Your task to perform on an android device: Clear the cart on newegg.com. Image 0: 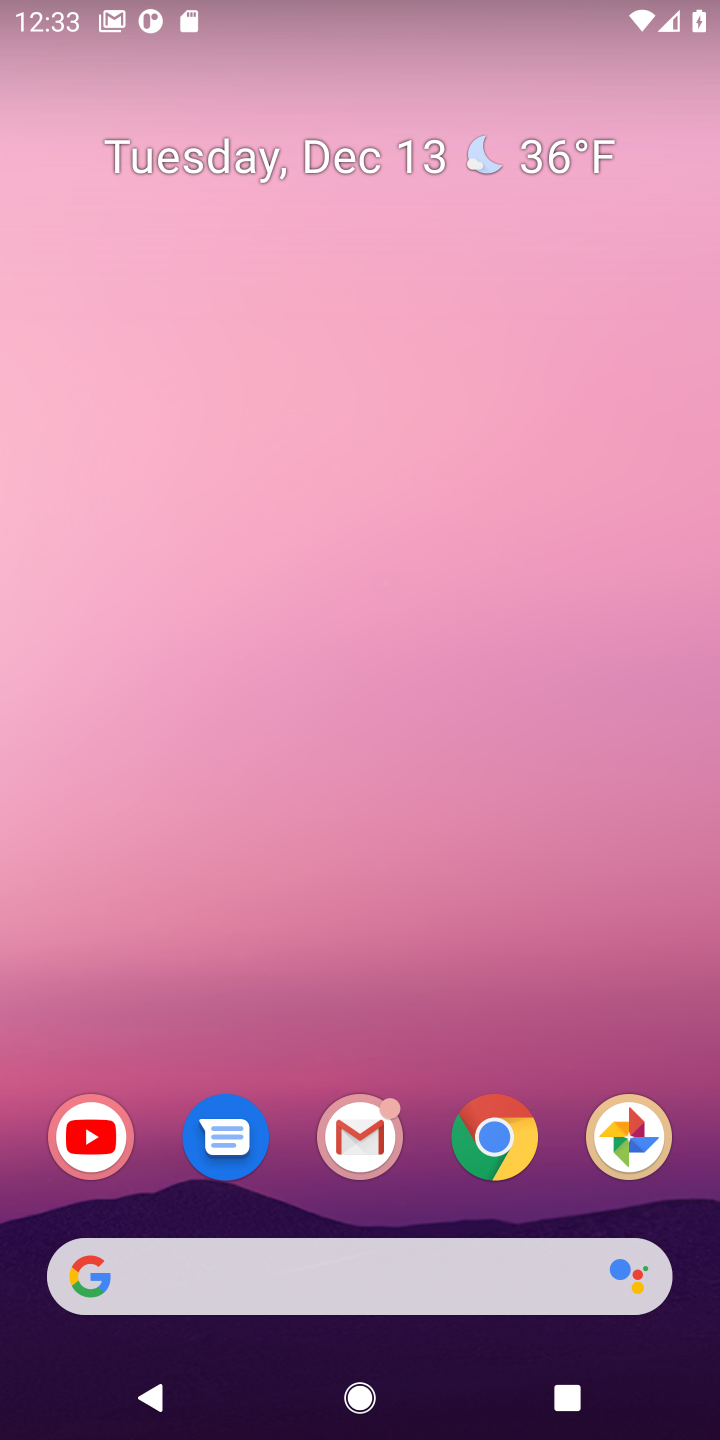
Step 0: click (374, 1272)
Your task to perform on an android device: Clear the cart on newegg.com. Image 1: 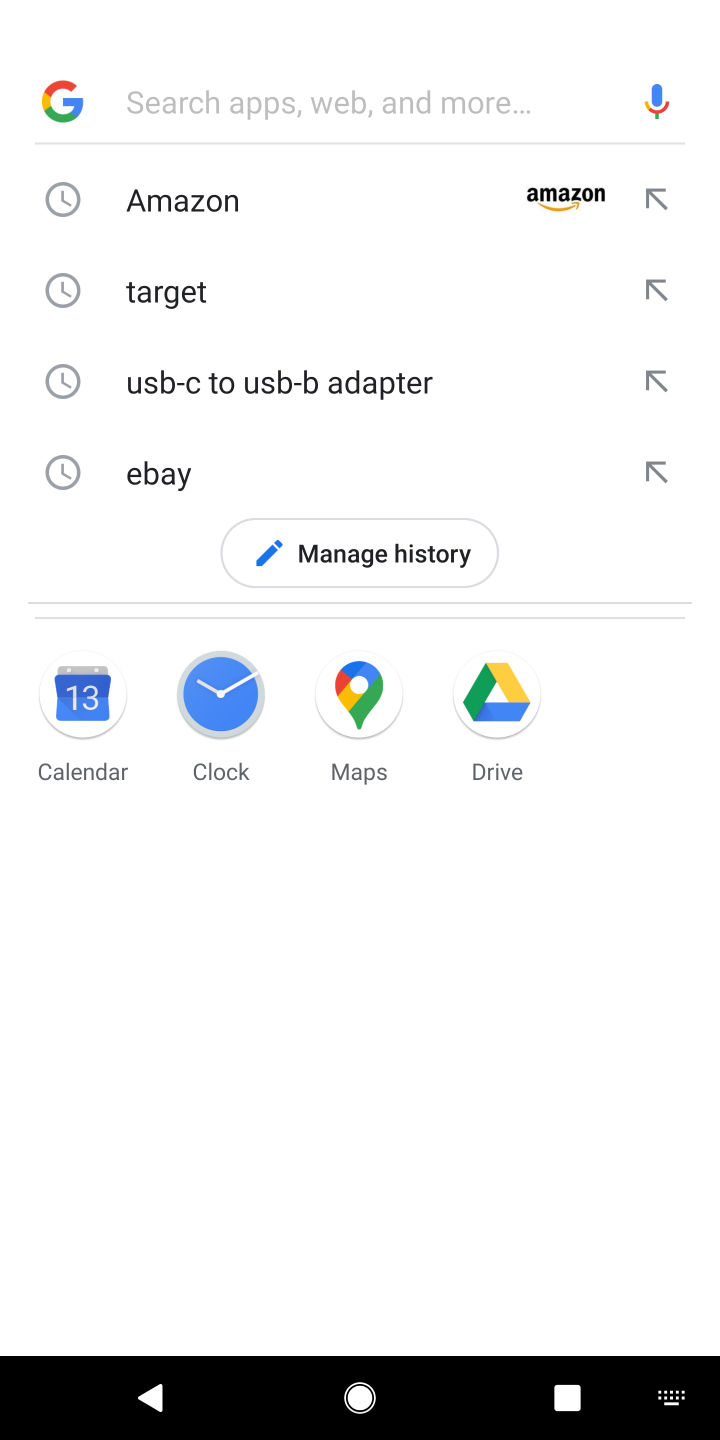
Step 1: type "newegg"
Your task to perform on an android device: Clear the cart on newegg.com. Image 2: 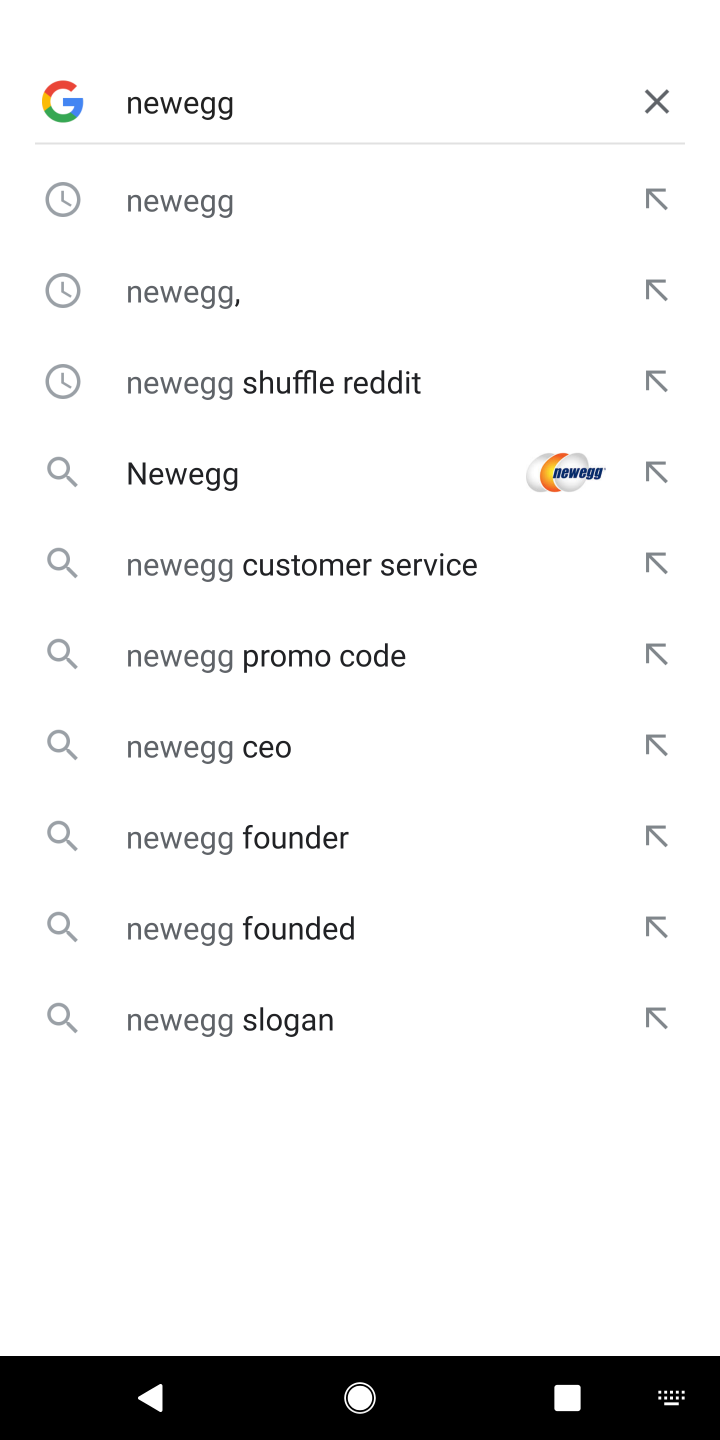
Step 2: click (312, 491)
Your task to perform on an android device: Clear the cart on newegg.com. Image 3: 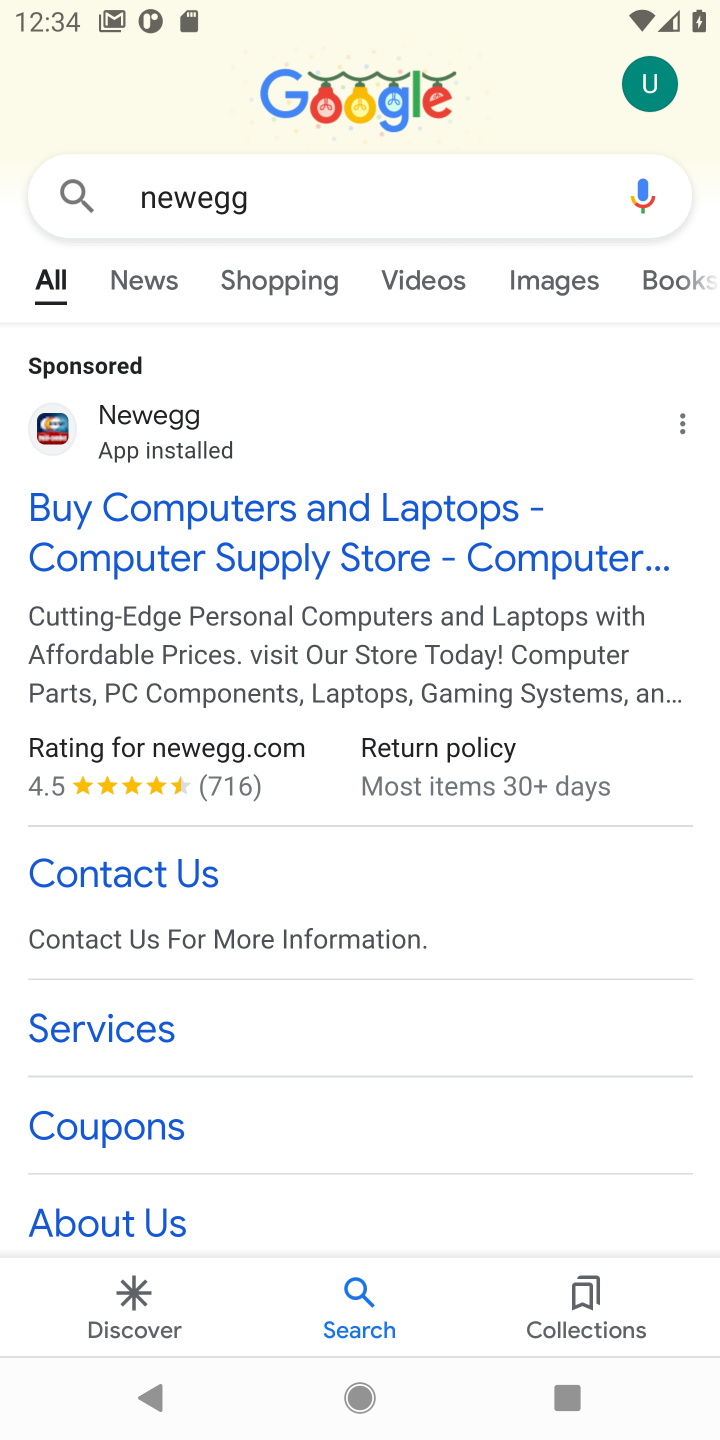
Step 3: click (307, 547)
Your task to perform on an android device: Clear the cart on newegg.com. Image 4: 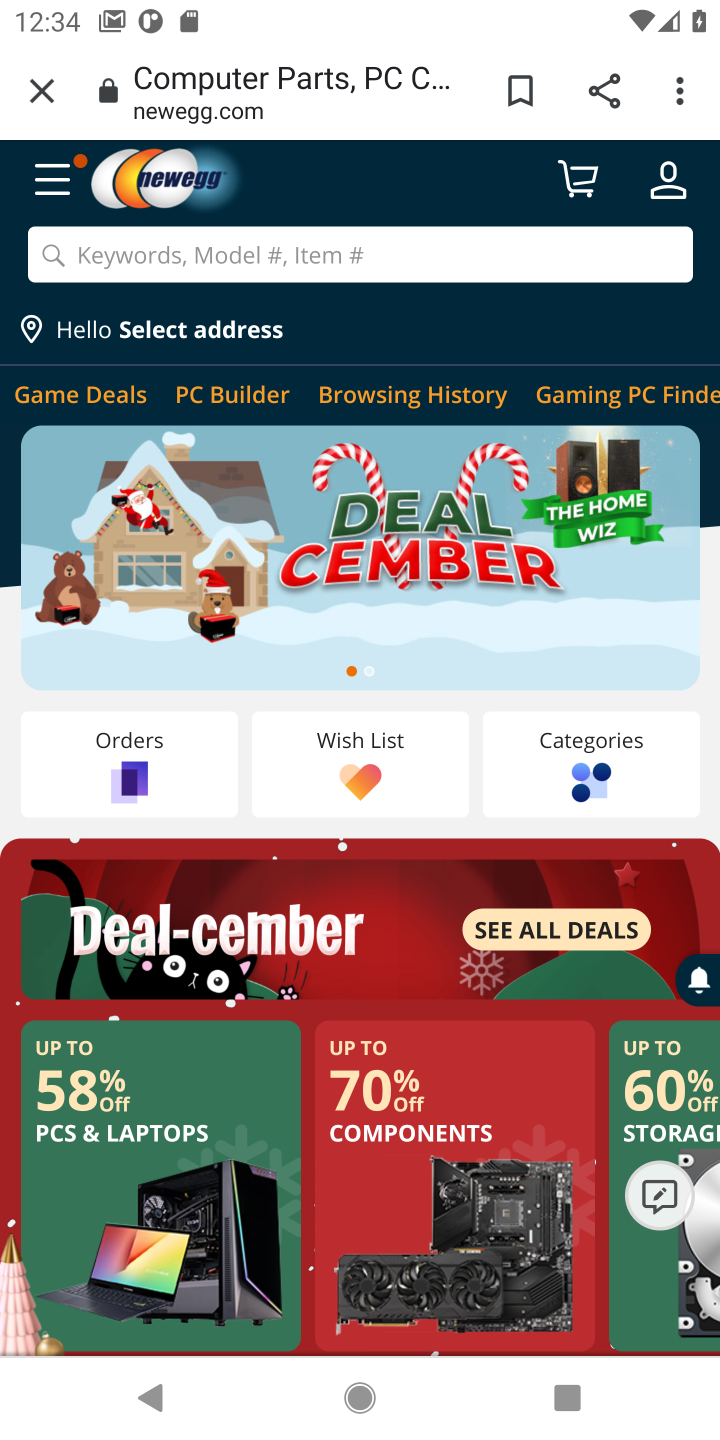
Step 4: click (202, 254)
Your task to perform on an android device: Clear the cart on newegg.com. Image 5: 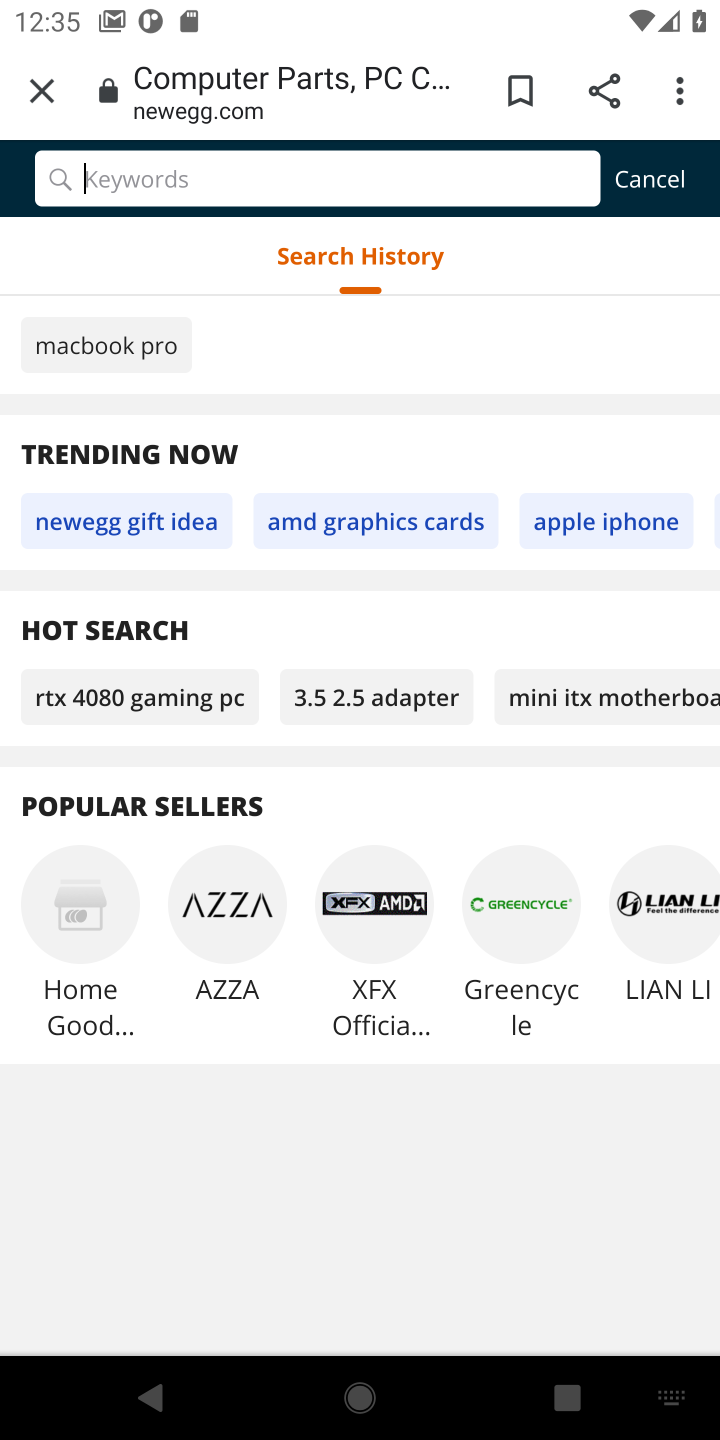
Step 5: click (636, 163)
Your task to perform on an android device: Clear the cart on newegg.com. Image 6: 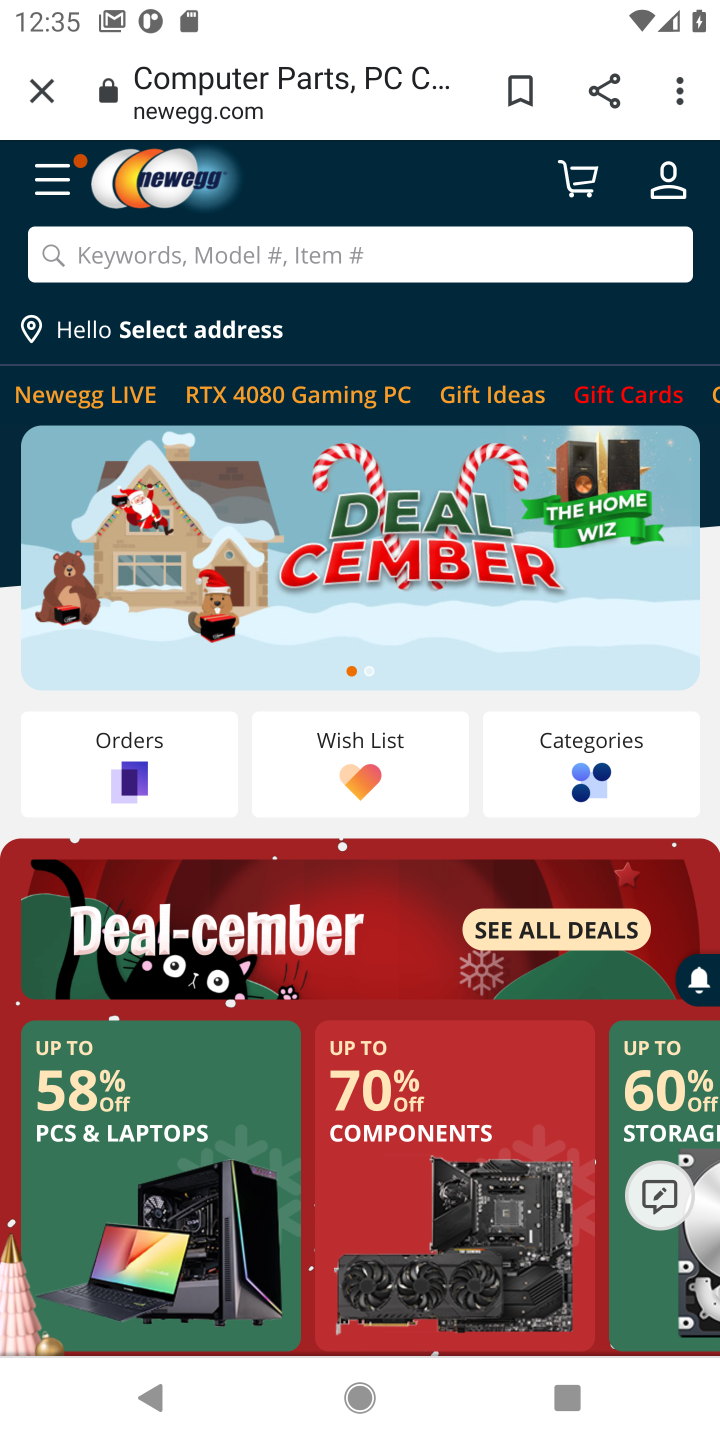
Step 6: click (552, 166)
Your task to perform on an android device: Clear the cart on newegg.com. Image 7: 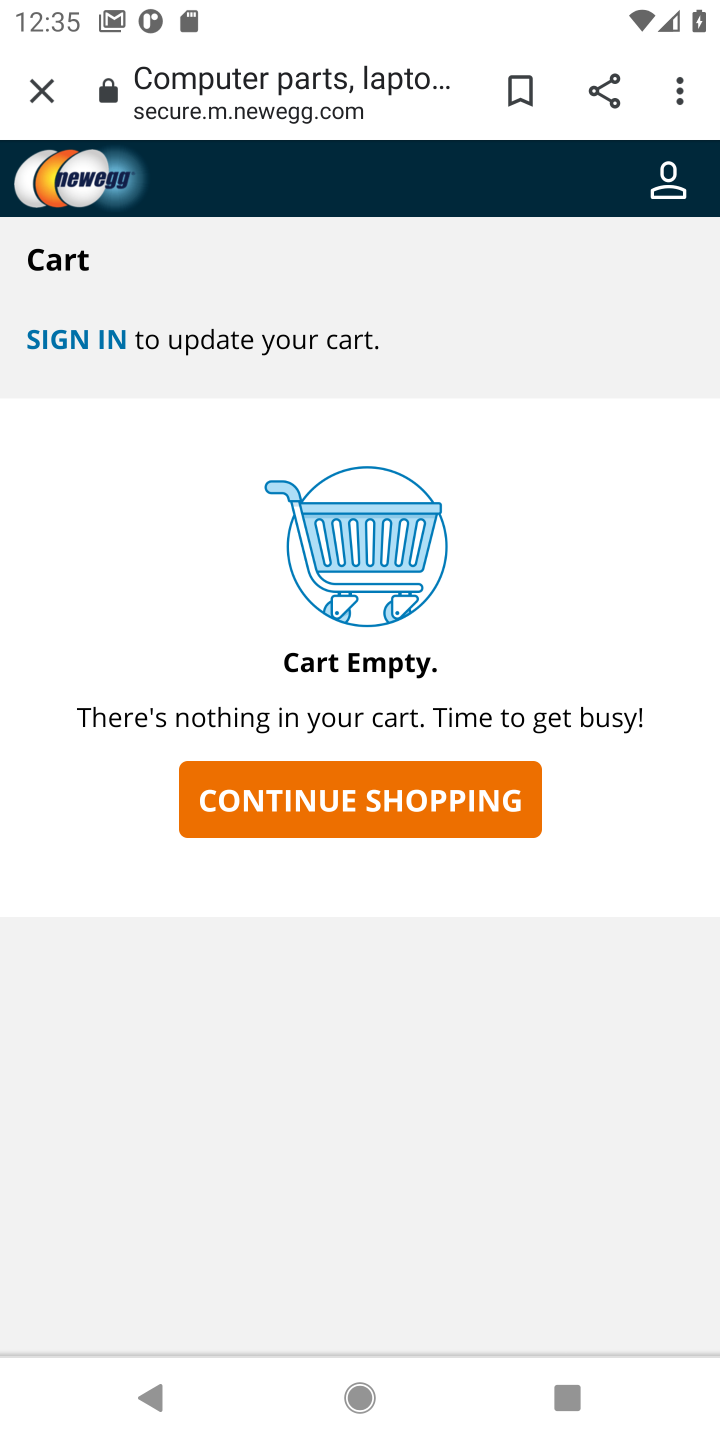
Step 7: task complete